Your task to perform on an android device: open app "Nova Launcher" (install if not already installed), go to login, and select forgot password Image 0: 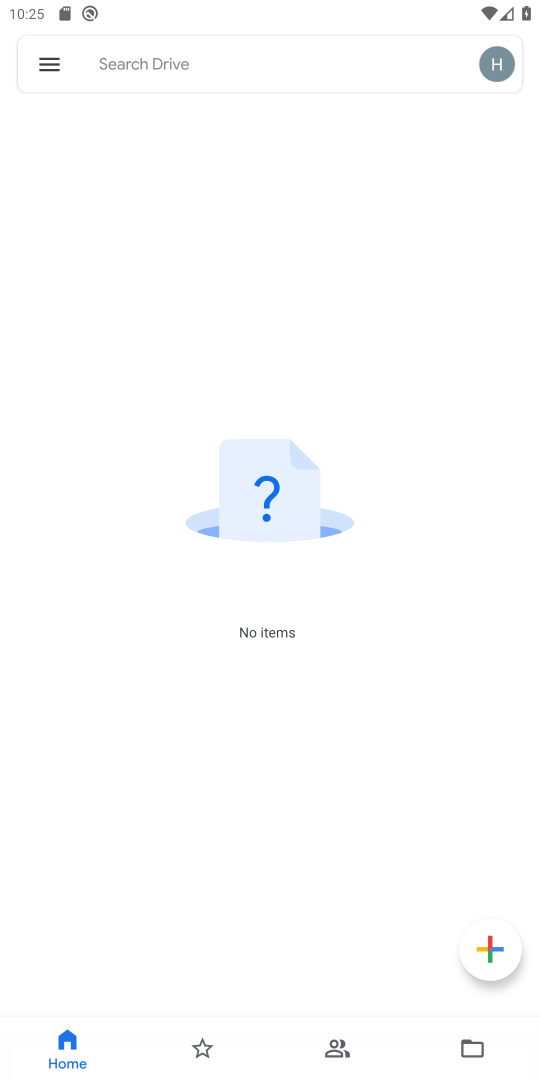
Step 0: press home button
Your task to perform on an android device: open app "Nova Launcher" (install if not already installed), go to login, and select forgot password Image 1: 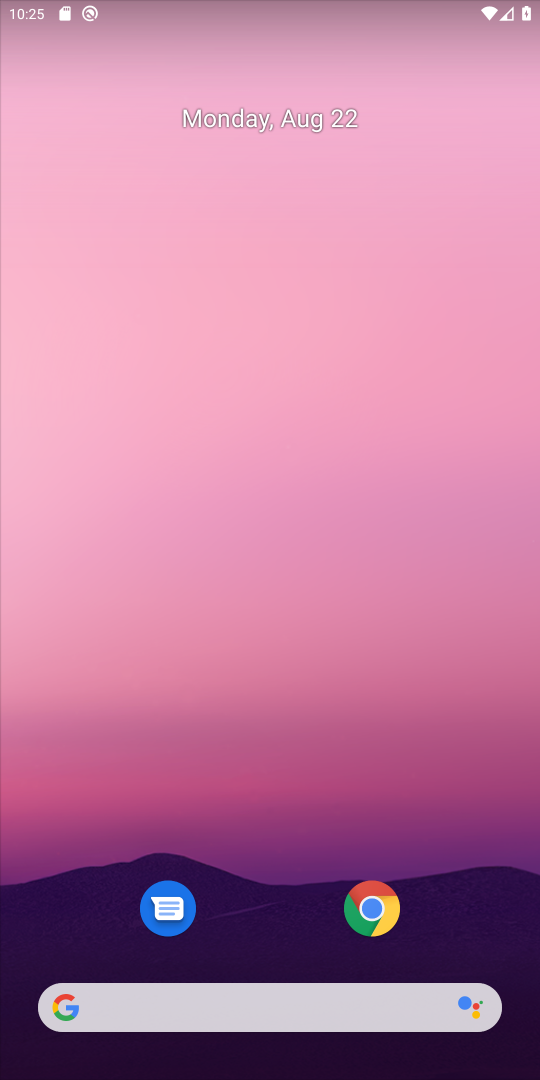
Step 1: drag from (283, 964) to (340, 297)
Your task to perform on an android device: open app "Nova Launcher" (install if not already installed), go to login, and select forgot password Image 2: 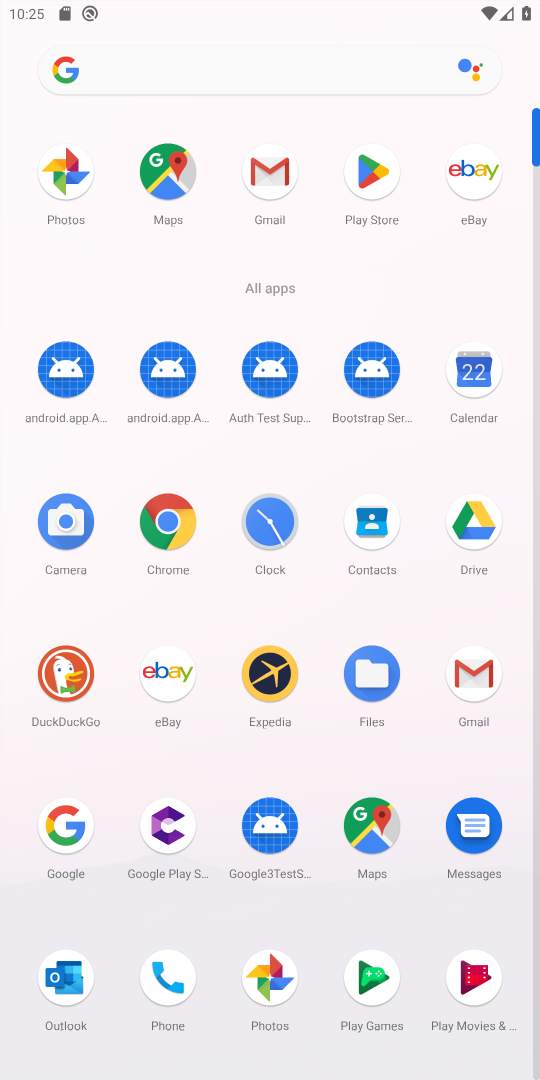
Step 2: click (369, 212)
Your task to perform on an android device: open app "Nova Launcher" (install if not already installed), go to login, and select forgot password Image 3: 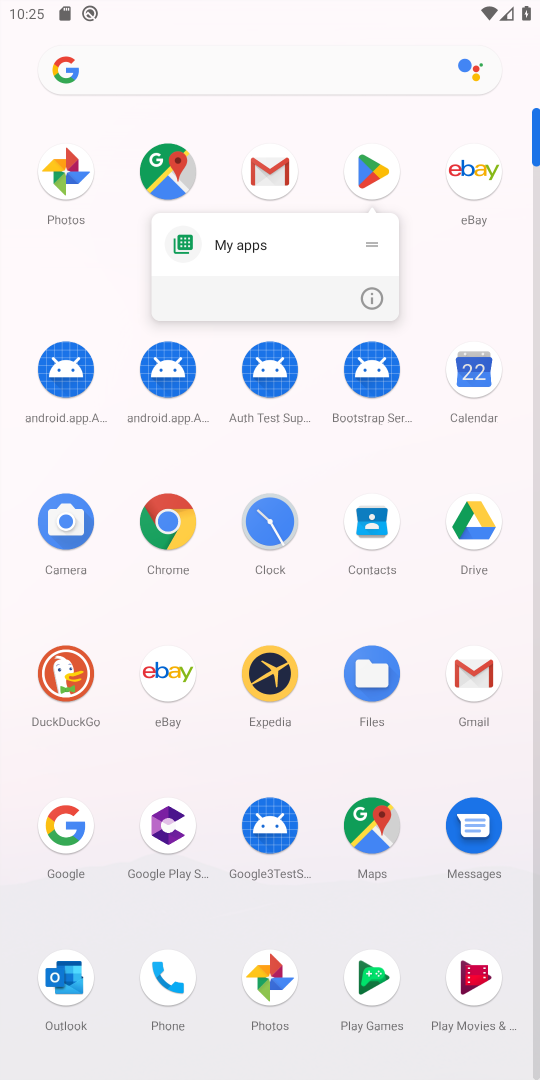
Step 3: click (375, 149)
Your task to perform on an android device: open app "Nova Launcher" (install if not already installed), go to login, and select forgot password Image 4: 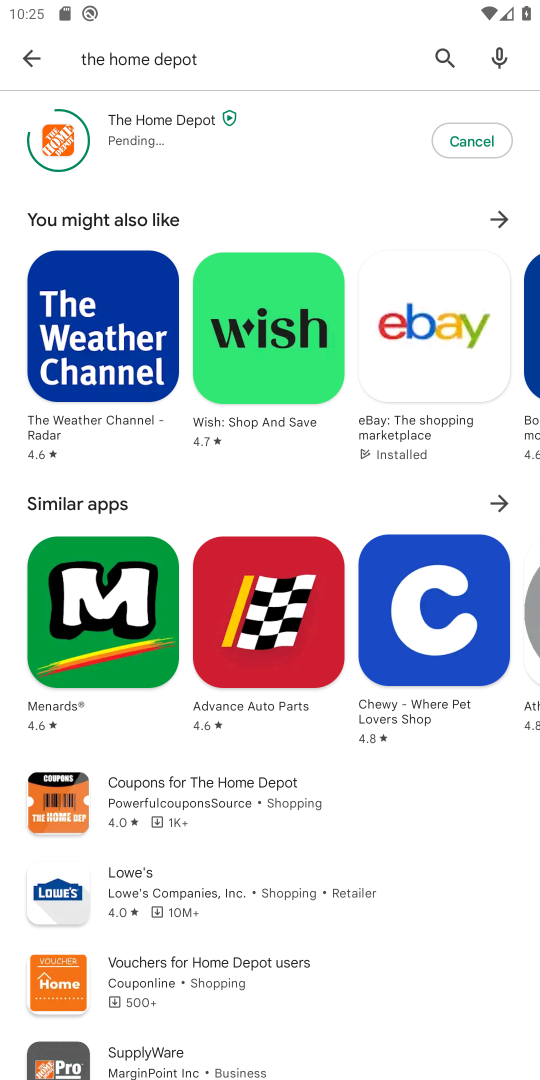
Step 4: click (375, 149)
Your task to perform on an android device: open app "Nova Launcher" (install if not already installed), go to login, and select forgot password Image 5: 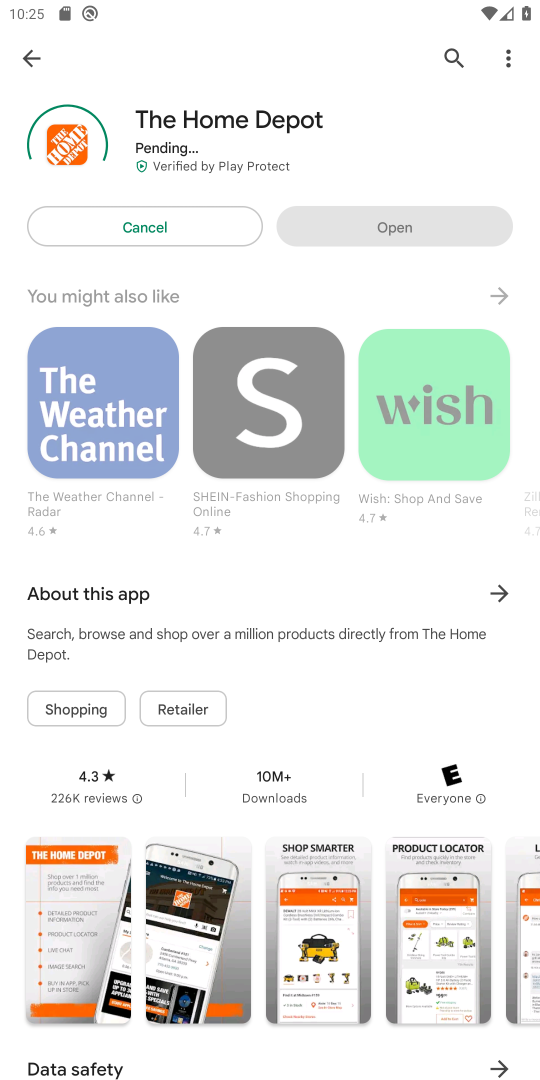
Step 5: click (449, 58)
Your task to perform on an android device: open app "Nova Launcher" (install if not already installed), go to login, and select forgot password Image 6: 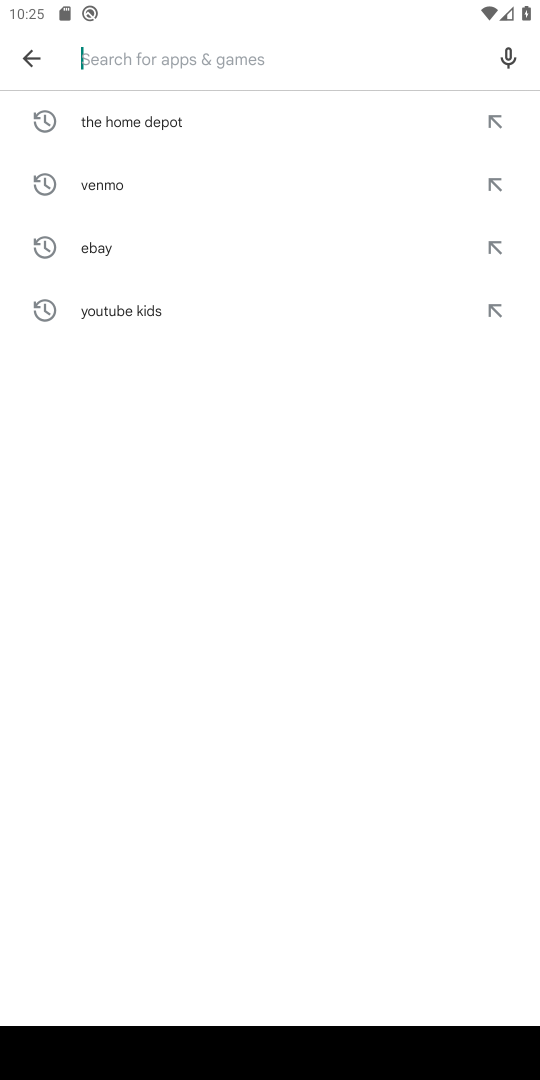
Step 6: type "nova launcher"
Your task to perform on an android device: open app "Nova Launcher" (install if not already installed), go to login, and select forgot password Image 7: 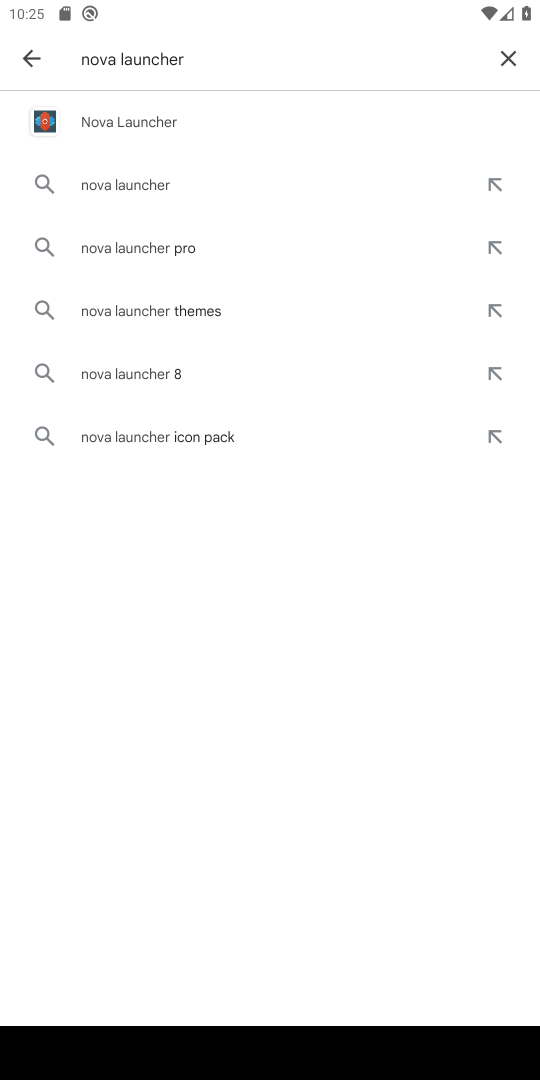
Step 7: click (171, 150)
Your task to perform on an android device: open app "Nova Launcher" (install if not already installed), go to login, and select forgot password Image 8: 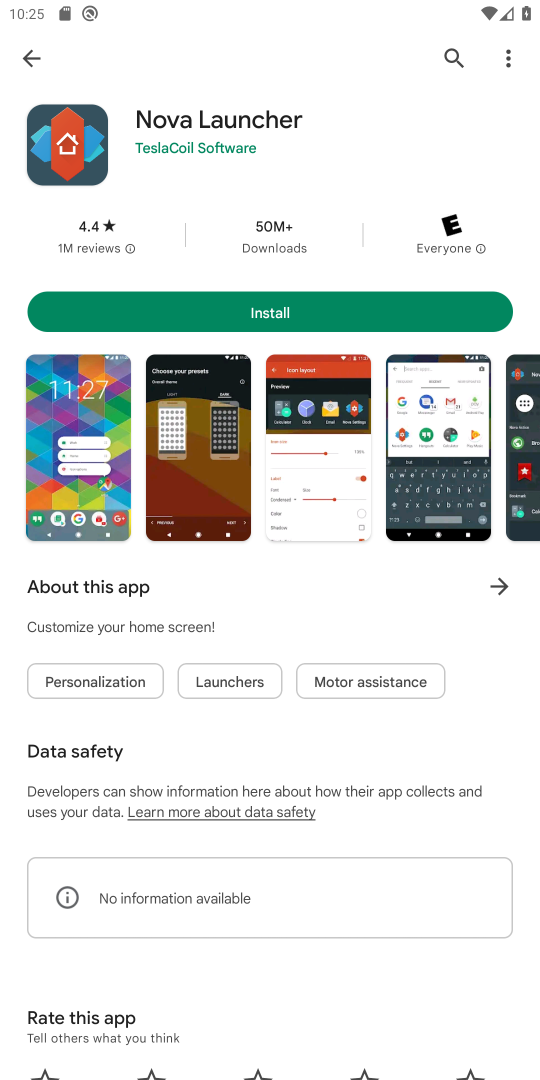
Step 8: click (189, 293)
Your task to perform on an android device: open app "Nova Launcher" (install if not already installed), go to login, and select forgot password Image 9: 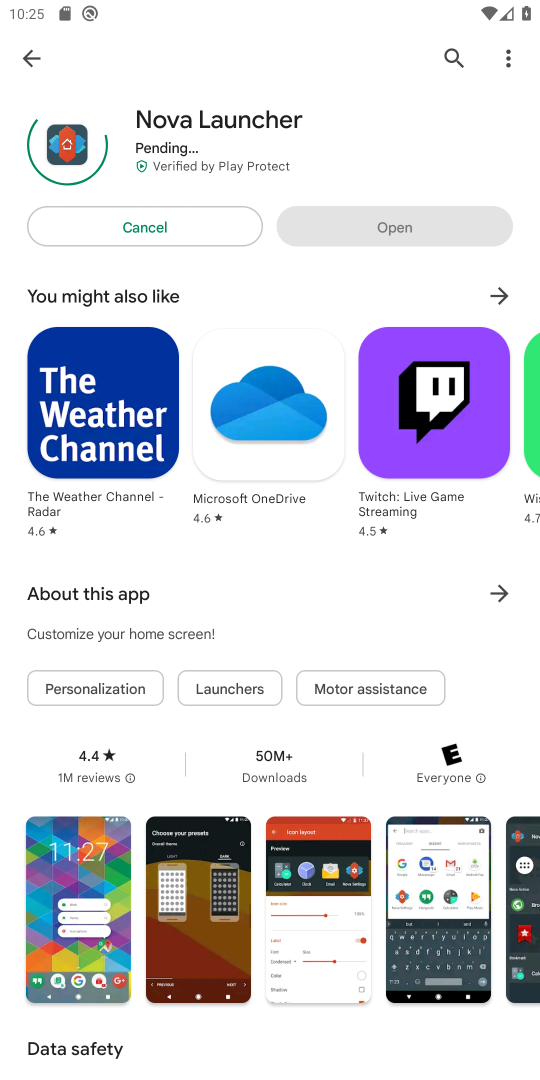
Step 9: task complete